Your task to perform on an android device: Open Yahoo.com Image 0: 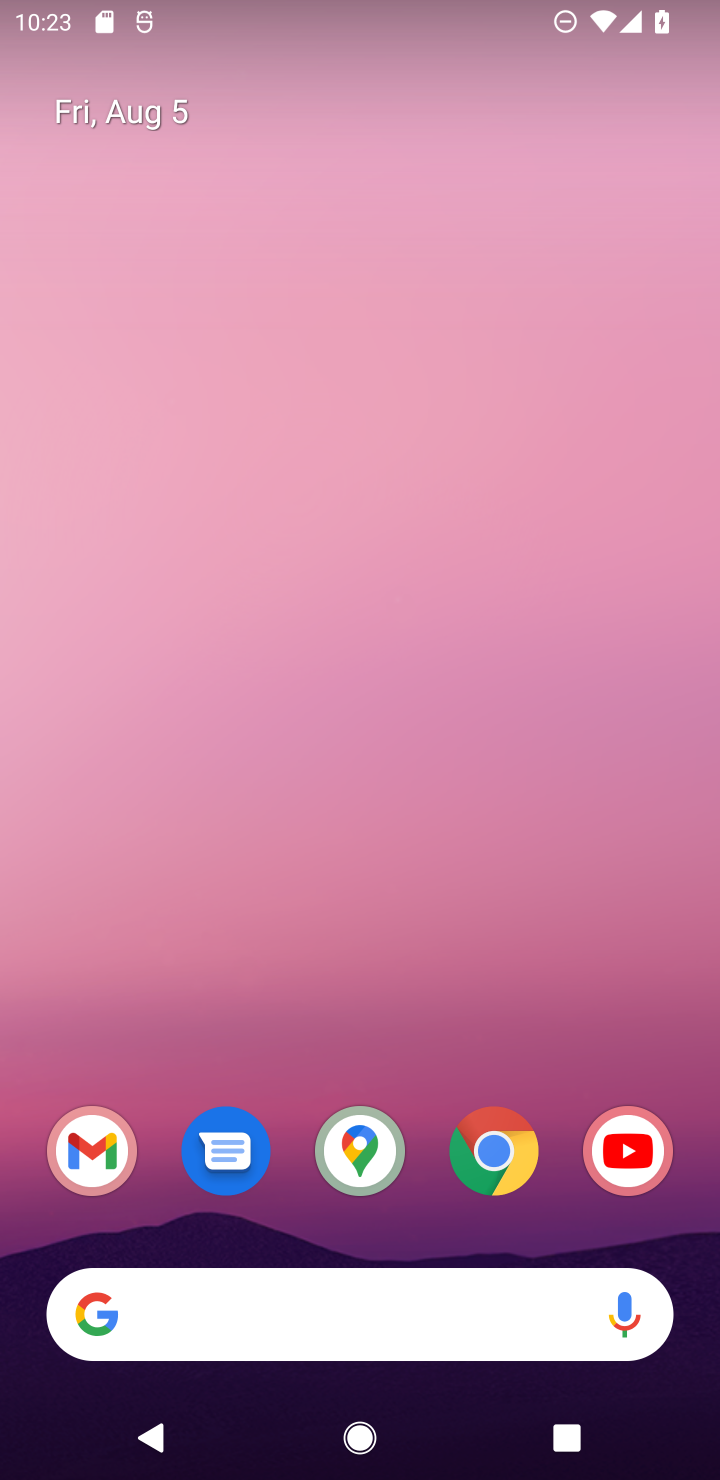
Step 0: click (494, 1141)
Your task to perform on an android device: Open Yahoo.com Image 1: 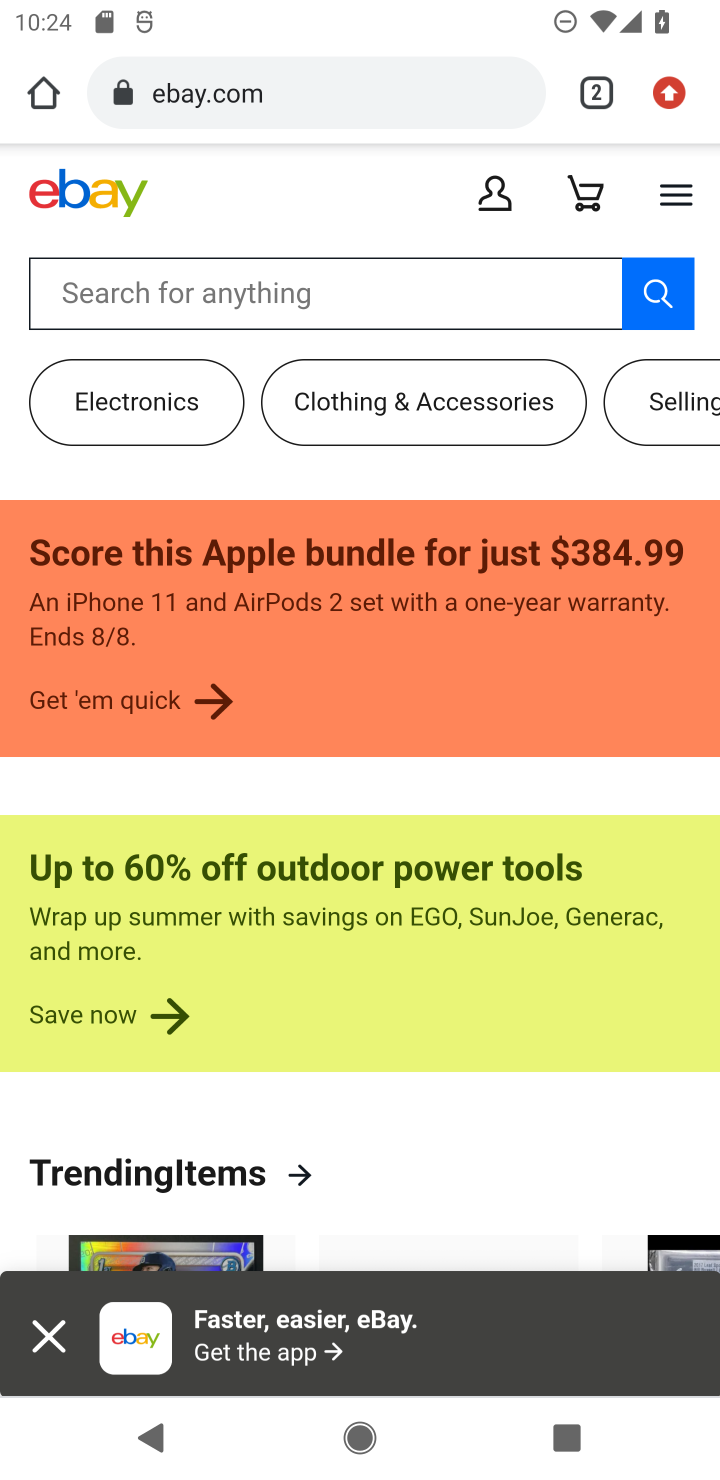
Step 1: click (322, 109)
Your task to perform on an android device: Open Yahoo.com Image 2: 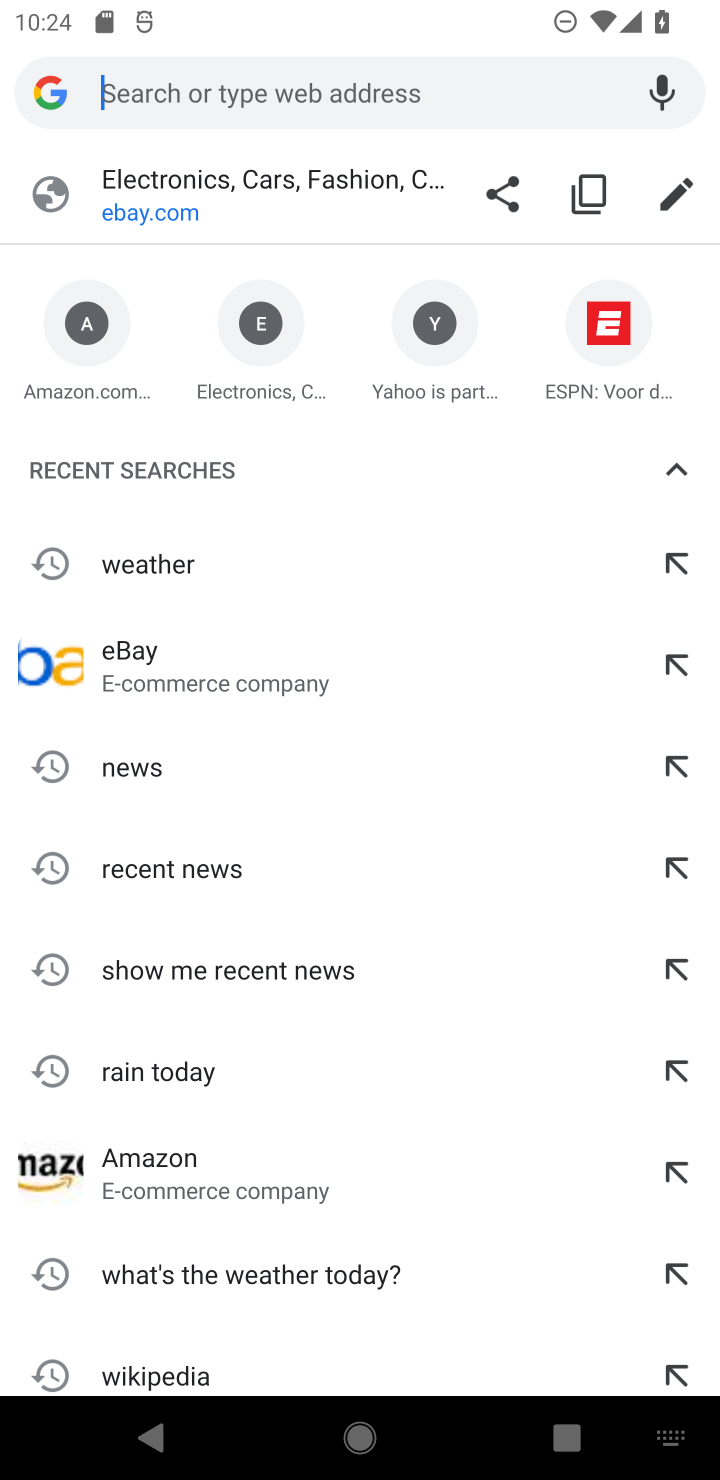
Step 2: type "www.yahoo.com"
Your task to perform on an android device: Open Yahoo.com Image 3: 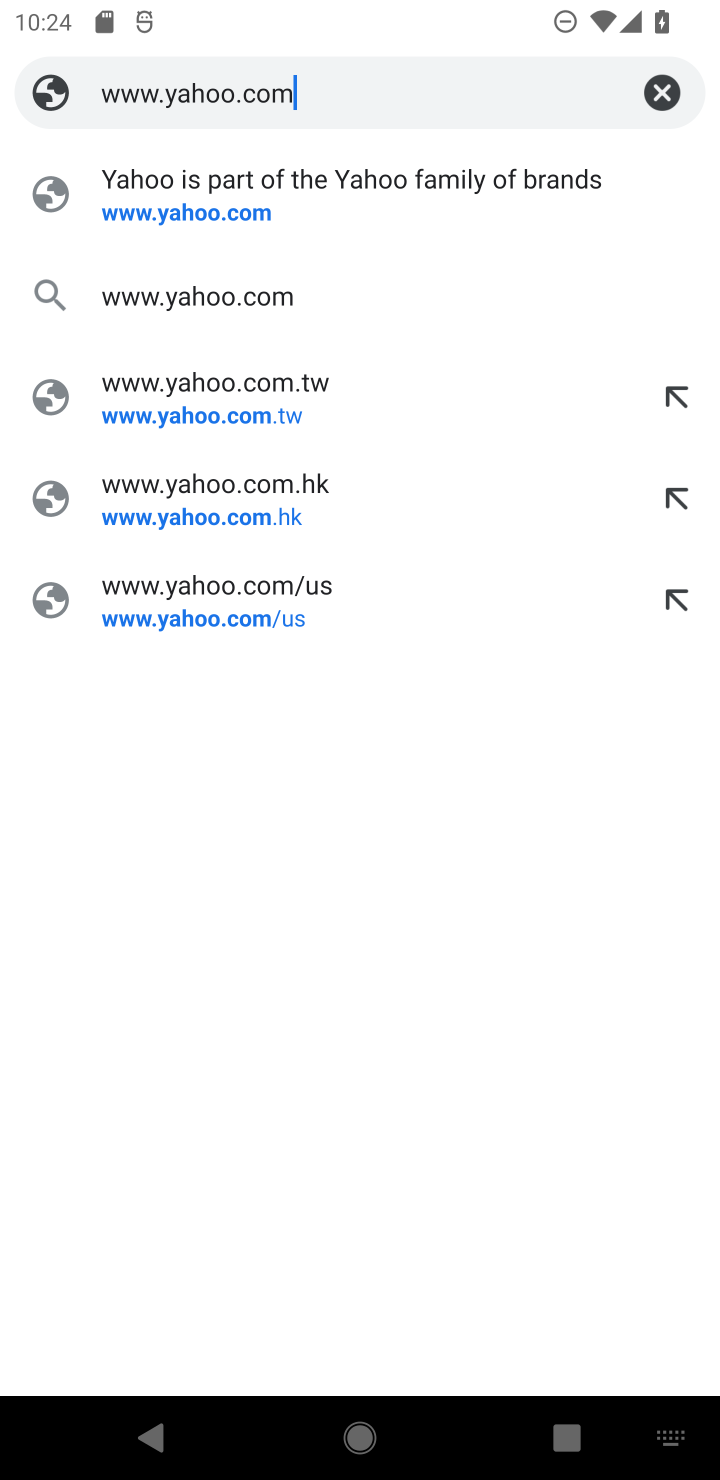
Step 3: click (213, 198)
Your task to perform on an android device: Open Yahoo.com Image 4: 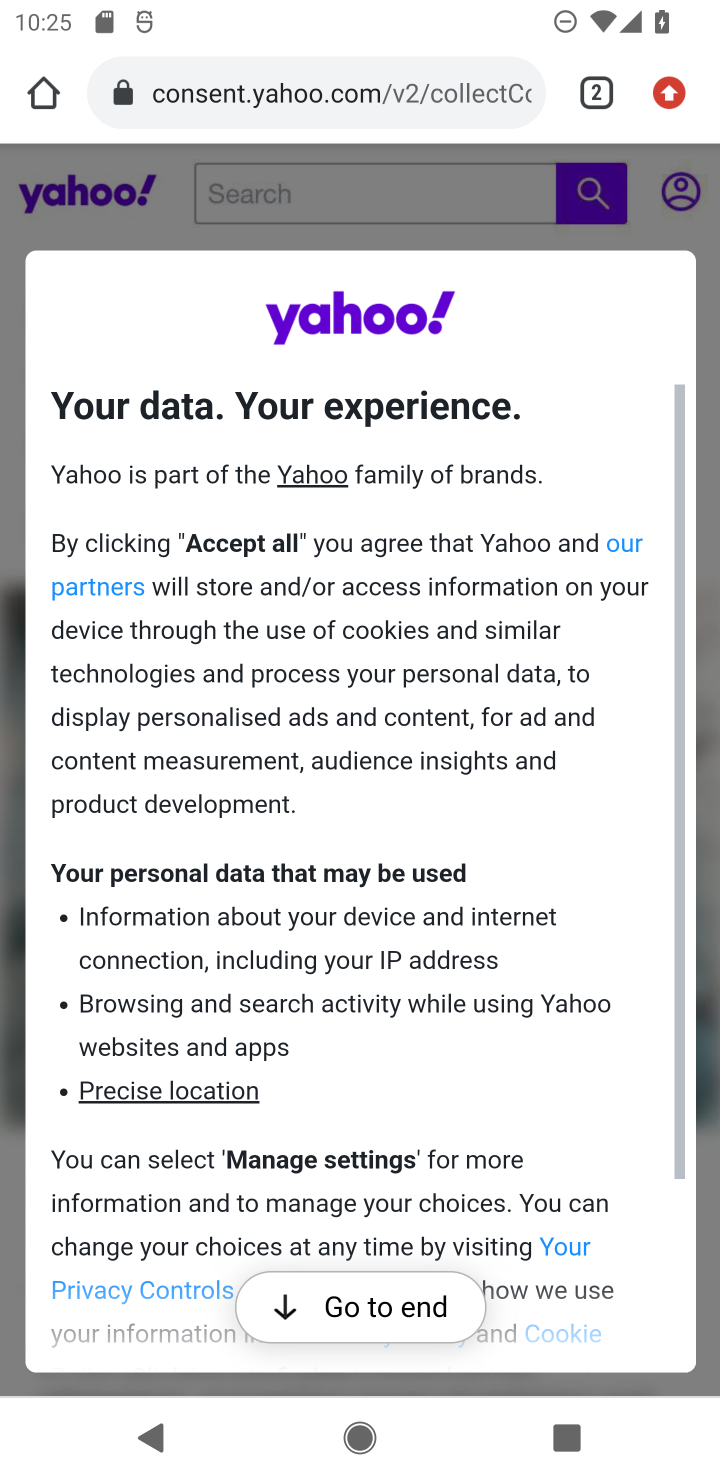
Step 4: task complete